Your task to perform on an android device: install app "Adobe Acrobat Reader" Image 0: 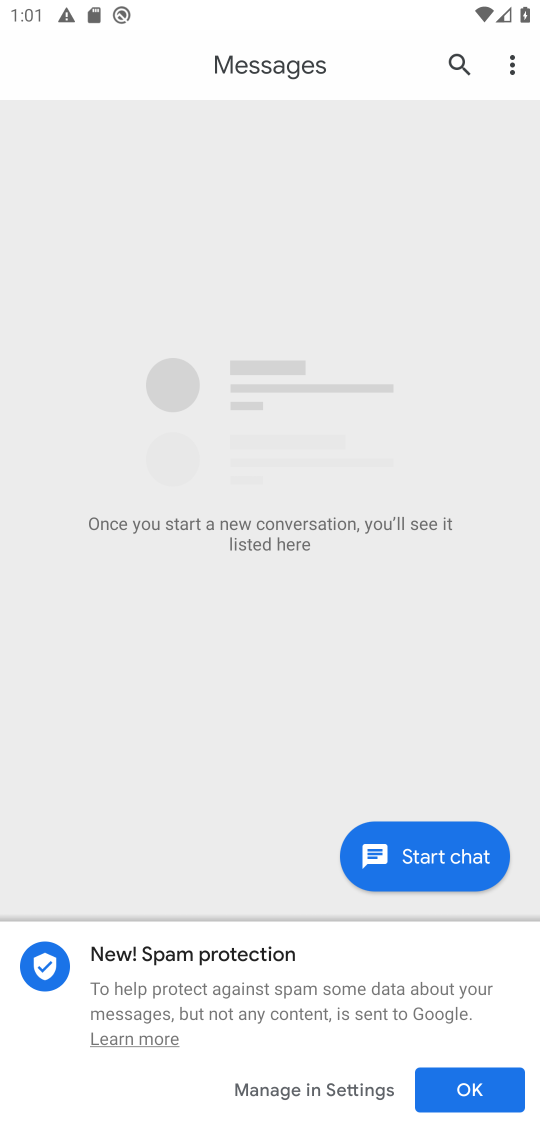
Step 0: press home button
Your task to perform on an android device: install app "Adobe Acrobat Reader" Image 1: 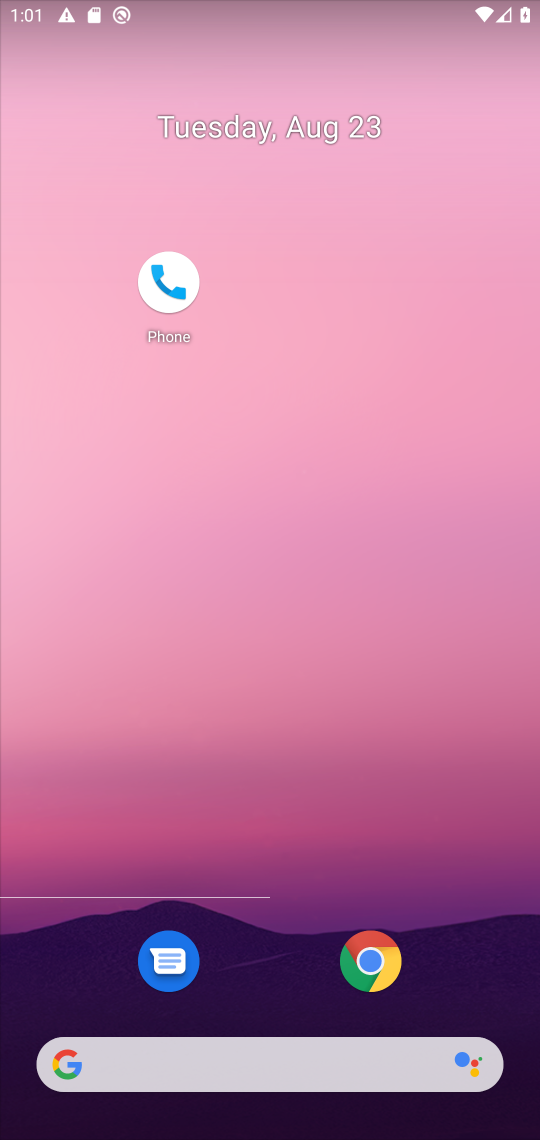
Step 1: drag from (281, 1028) to (369, 83)
Your task to perform on an android device: install app "Adobe Acrobat Reader" Image 2: 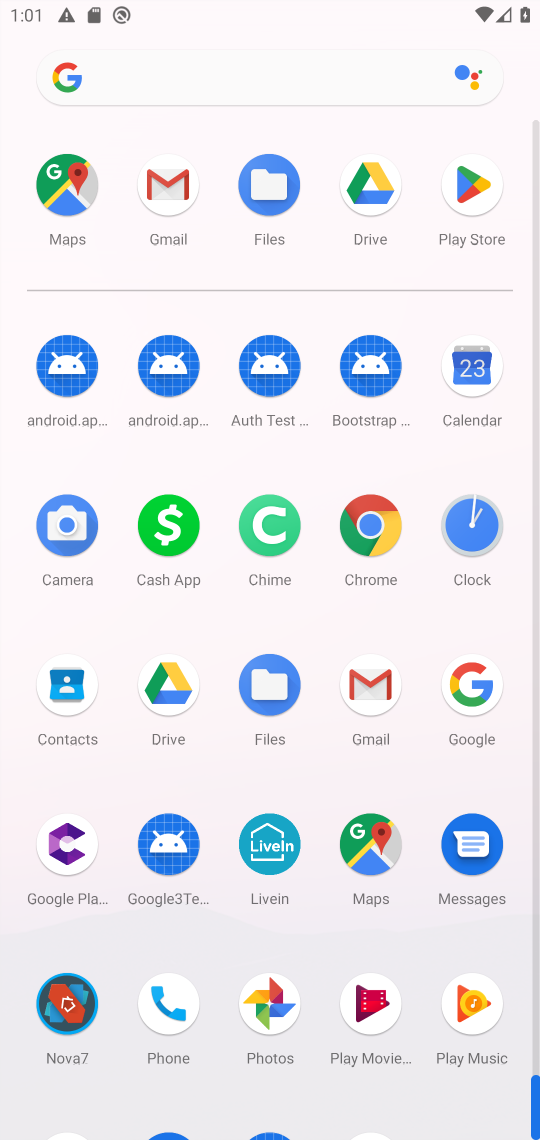
Step 2: click (442, 199)
Your task to perform on an android device: install app "Adobe Acrobat Reader" Image 3: 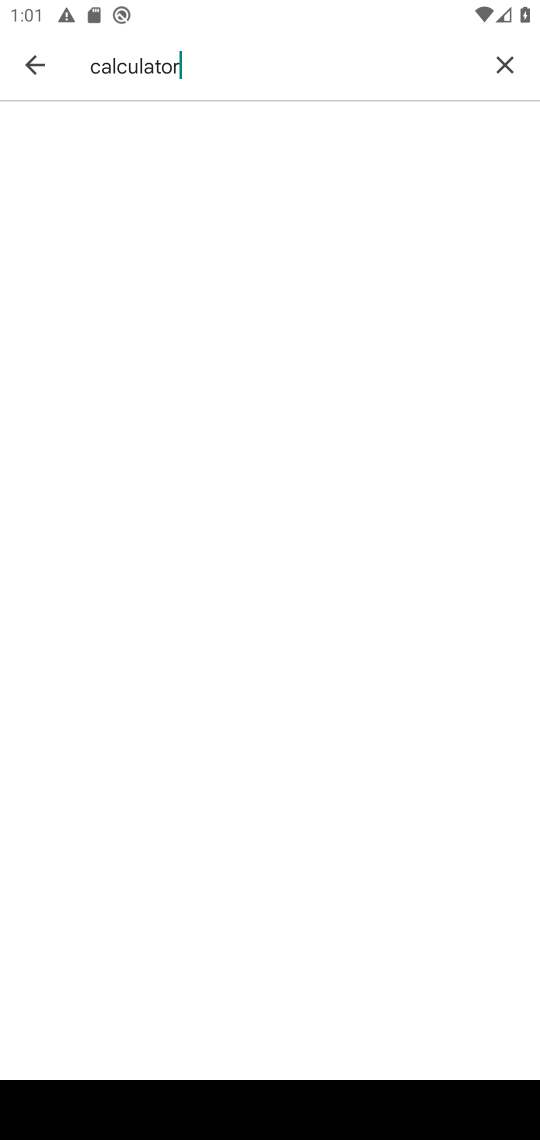
Step 3: click (493, 79)
Your task to perform on an android device: install app "Adobe Acrobat Reader" Image 4: 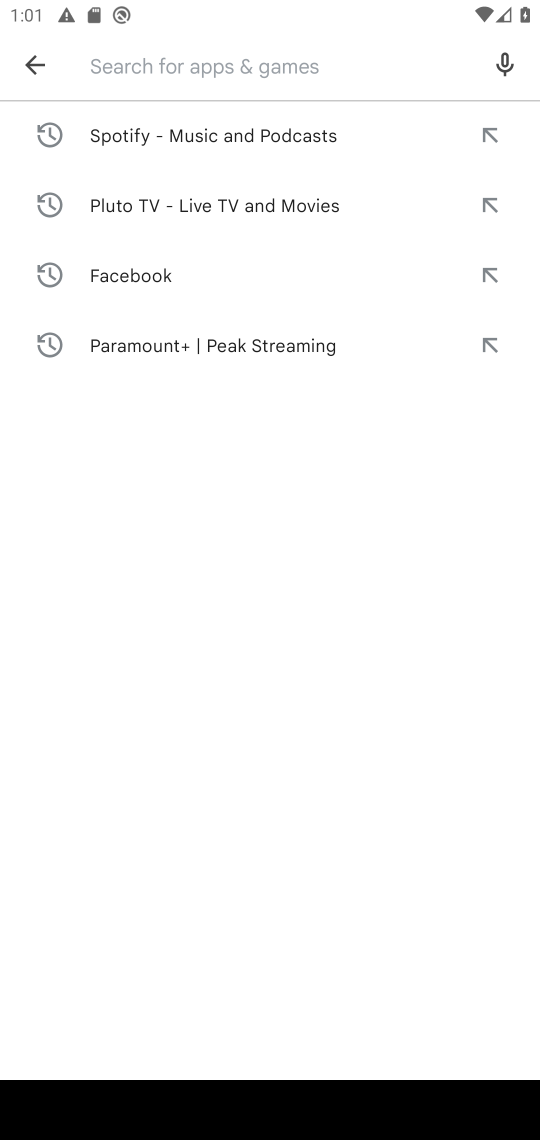
Step 4: type "adobe"
Your task to perform on an android device: install app "Adobe Acrobat Reader" Image 5: 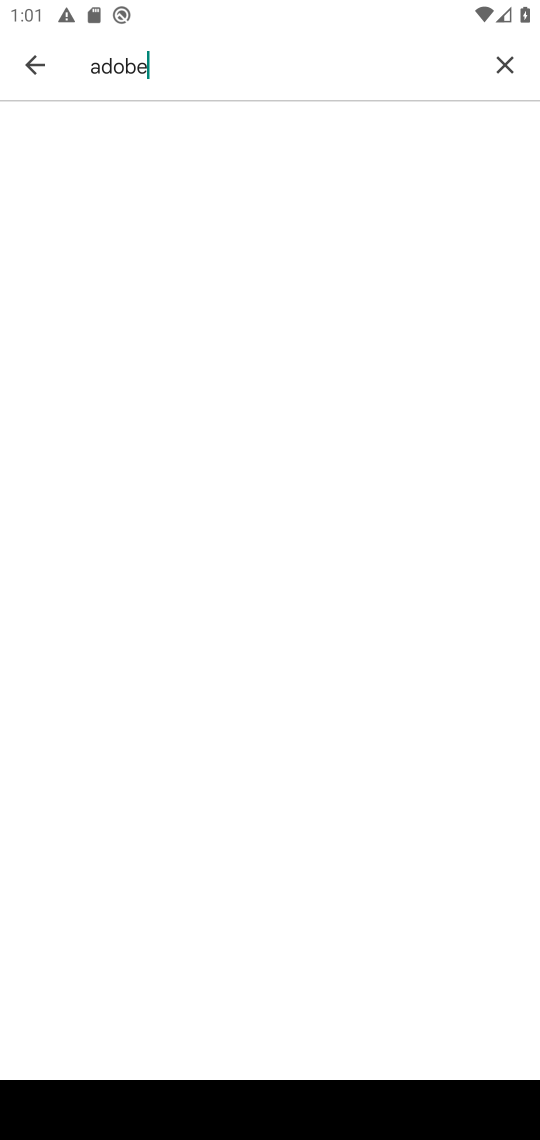
Step 5: task complete